Your task to perform on an android device: Open my contact list Image 0: 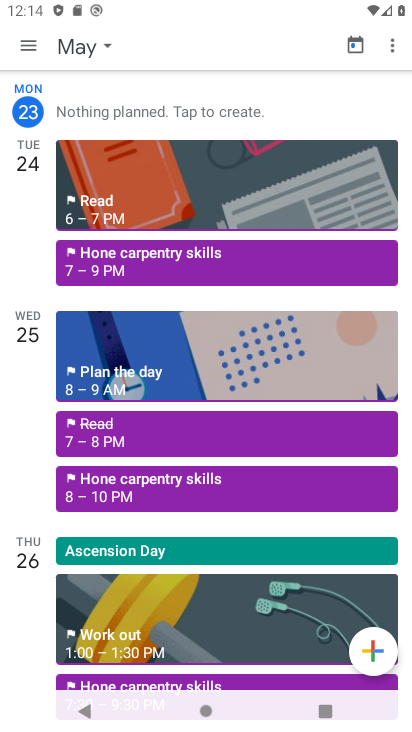
Step 0: press home button
Your task to perform on an android device: Open my contact list Image 1: 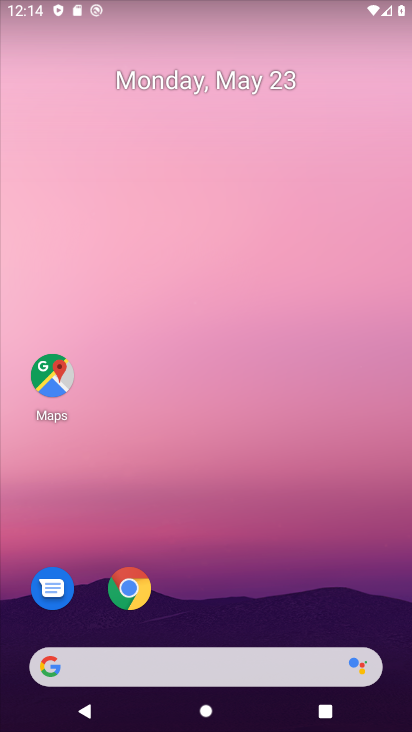
Step 1: drag from (184, 686) to (161, 46)
Your task to perform on an android device: Open my contact list Image 2: 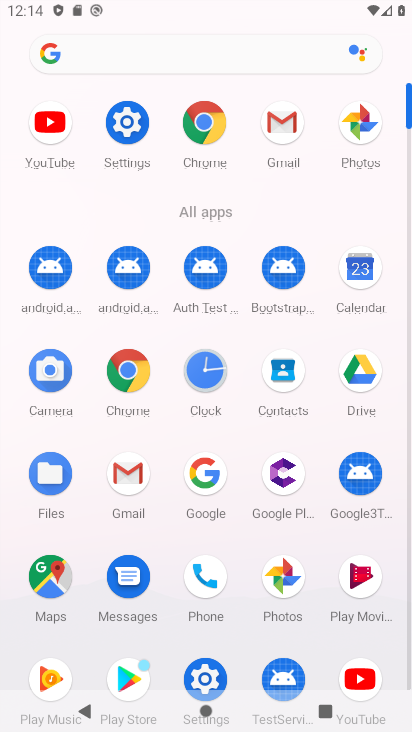
Step 2: click (280, 372)
Your task to perform on an android device: Open my contact list Image 3: 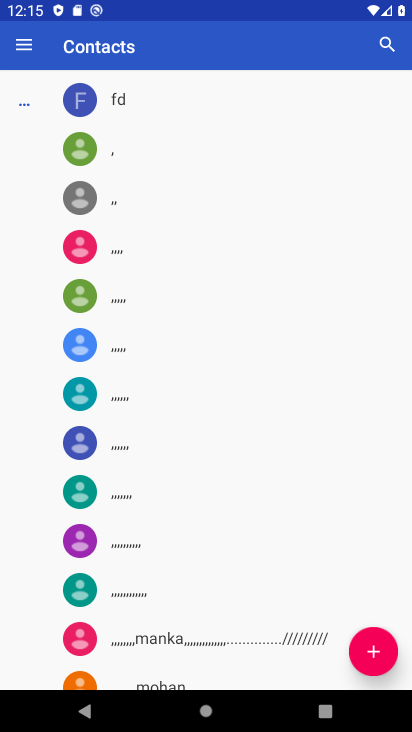
Step 3: task complete